Your task to perform on an android device: Open calendar and show me the second week of next month Image 0: 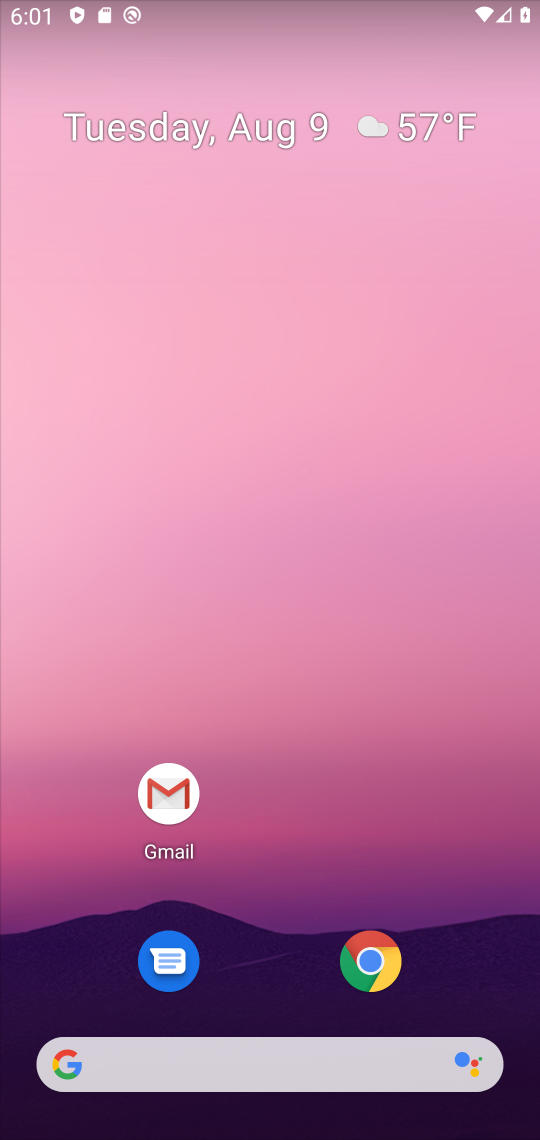
Step 0: press back button
Your task to perform on an android device: Open calendar and show me the second week of next month Image 1: 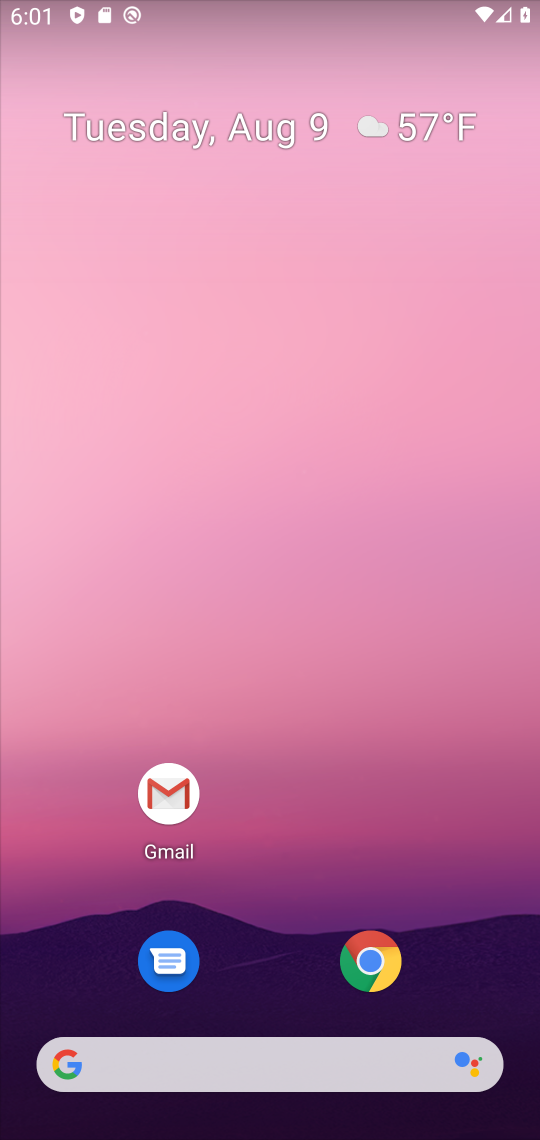
Step 1: click (231, 238)
Your task to perform on an android device: Open calendar and show me the second week of next month Image 2: 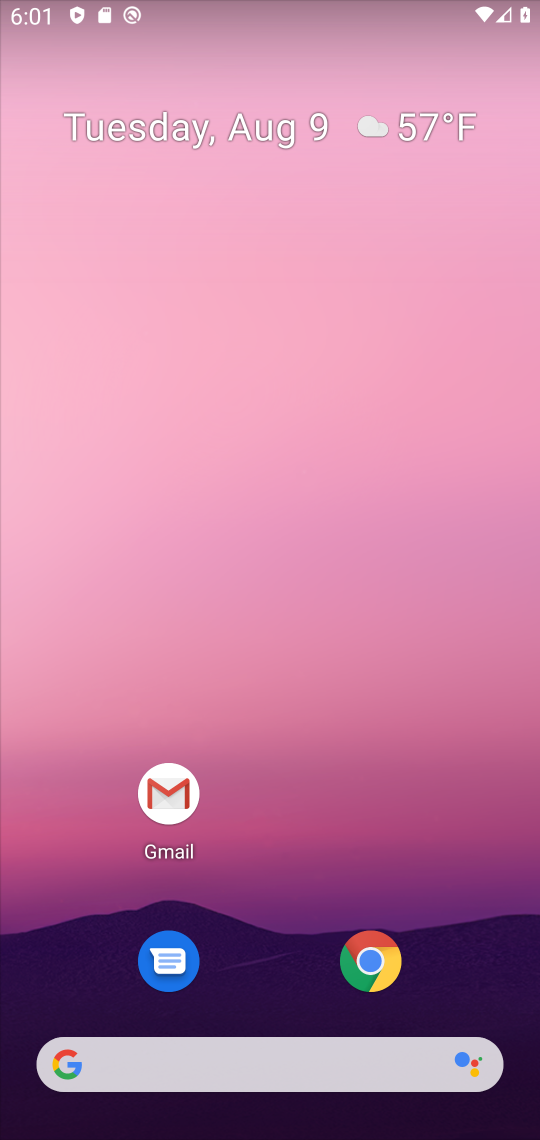
Step 2: drag from (282, 576) to (280, 385)
Your task to perform on an android device: Open calendar and show me the second week of next month Image 3: 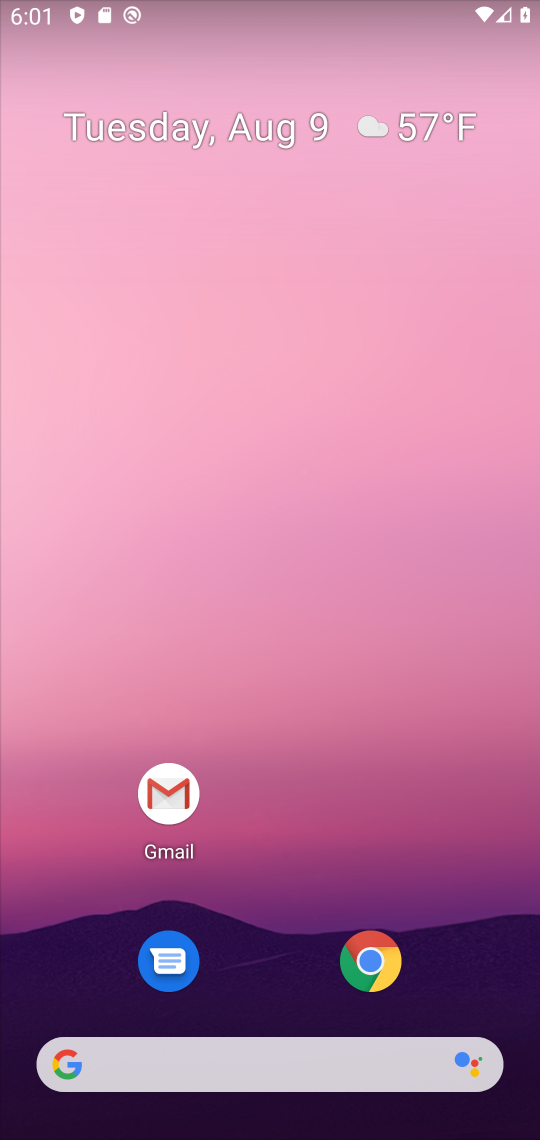
Step 3: drag from (208, 1040) to (163, 474)
Your task to perform on an android device: Open calendar and show me the second week of next month Image 4: 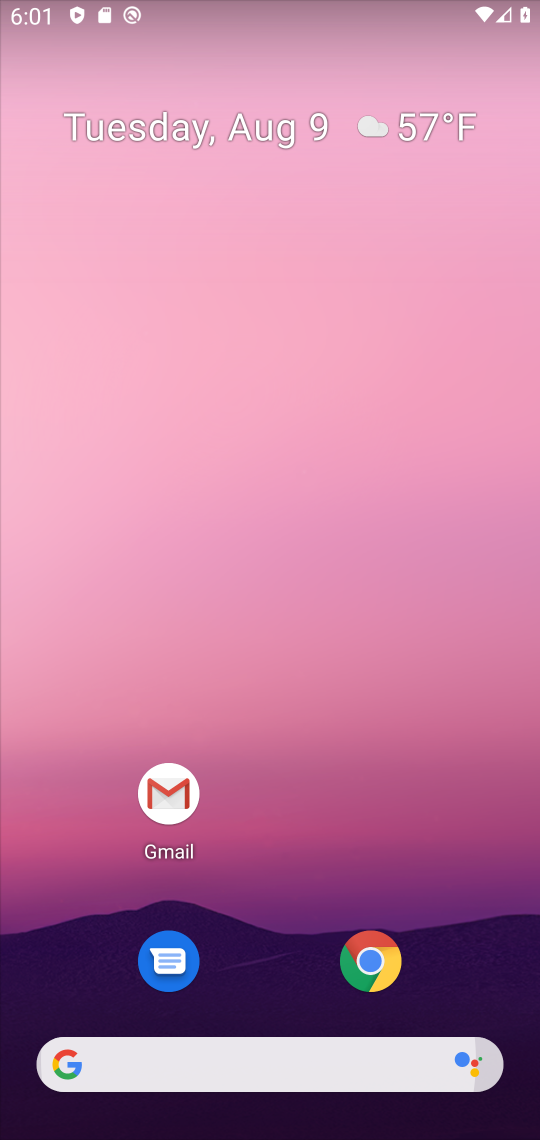
Step 4: drag from (283, 958) to (283, 499)
Your task to perform on an android device: Open calendar and show me the second week of next month Image 5: 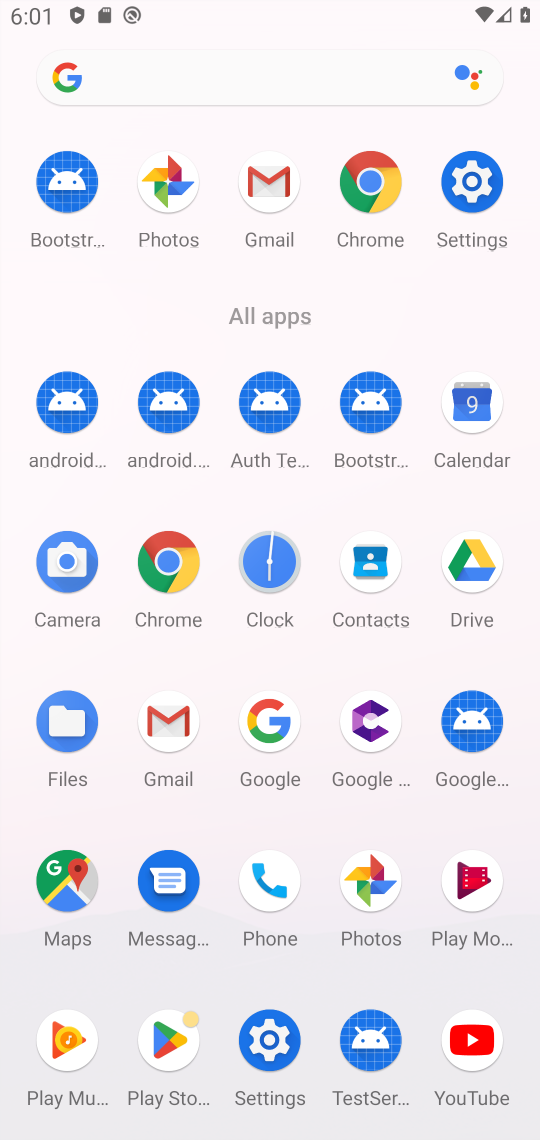
Step 5: click (306, 401)
Your task to perform on an android device: Open calendar and show me the second week of next month Image 6: 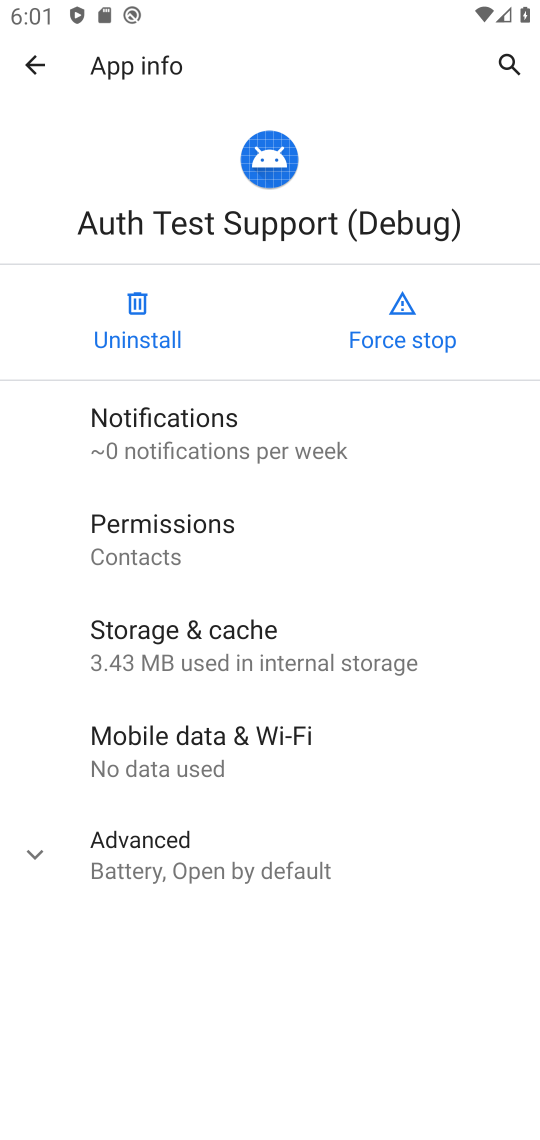
Step 6: click (41, 63)
Your task to perform on an android device: Open calendar and show me the second week of next month Image 7: 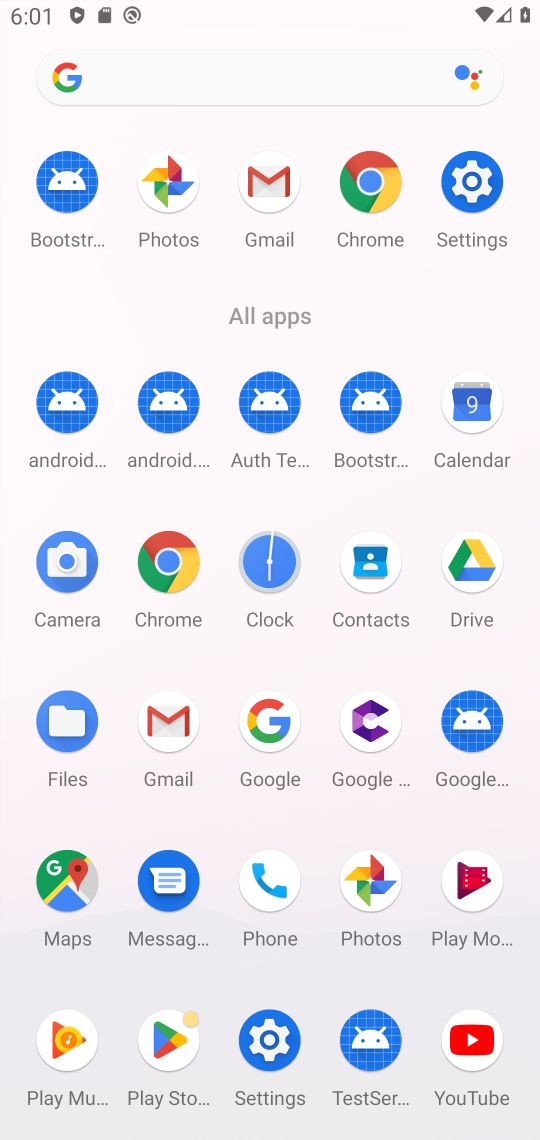
Step 7: click (470, 406)
Your task to perform on an android device: Open calendar and show me the second week of next month Image 8: 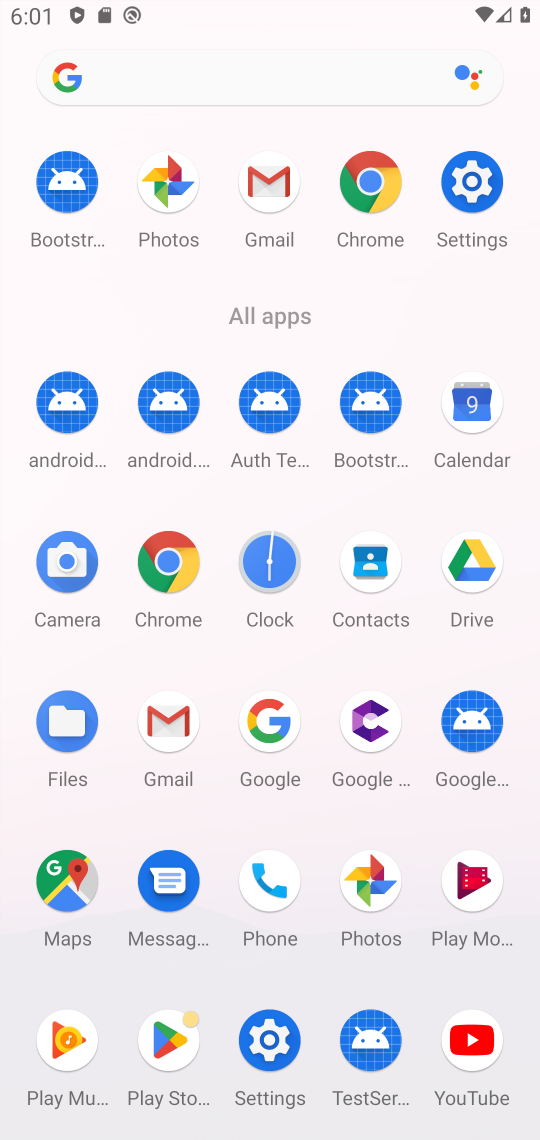
Step 8: click (470, 406)
Your task to perform on an android device: Open calendar and show me the second week of next month Image 9: 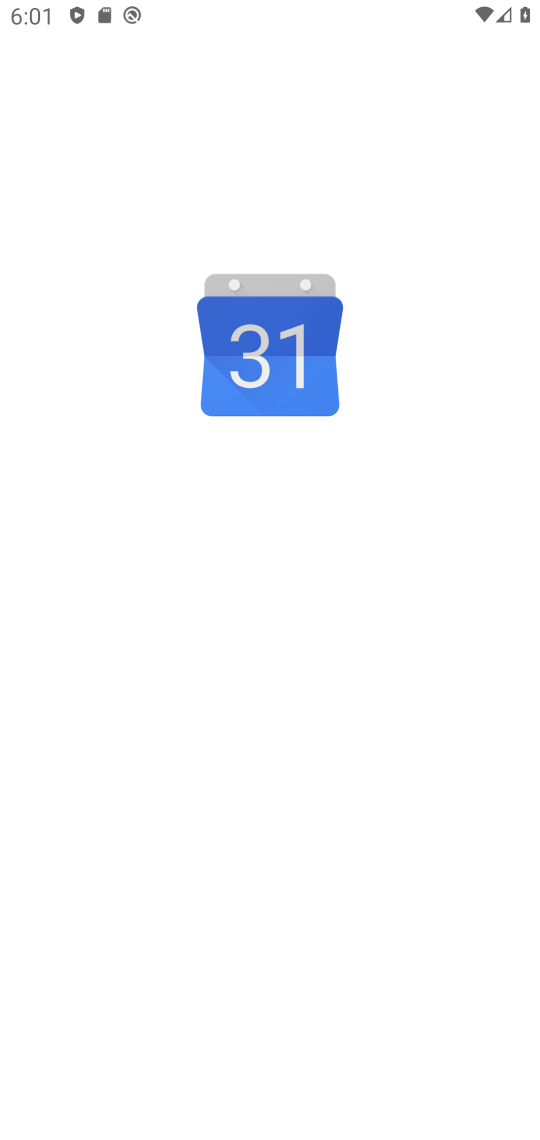
Step 9: click (470, 406)
Your task to perform on an android device: Open calendar and show me the second week of next month Image 10: 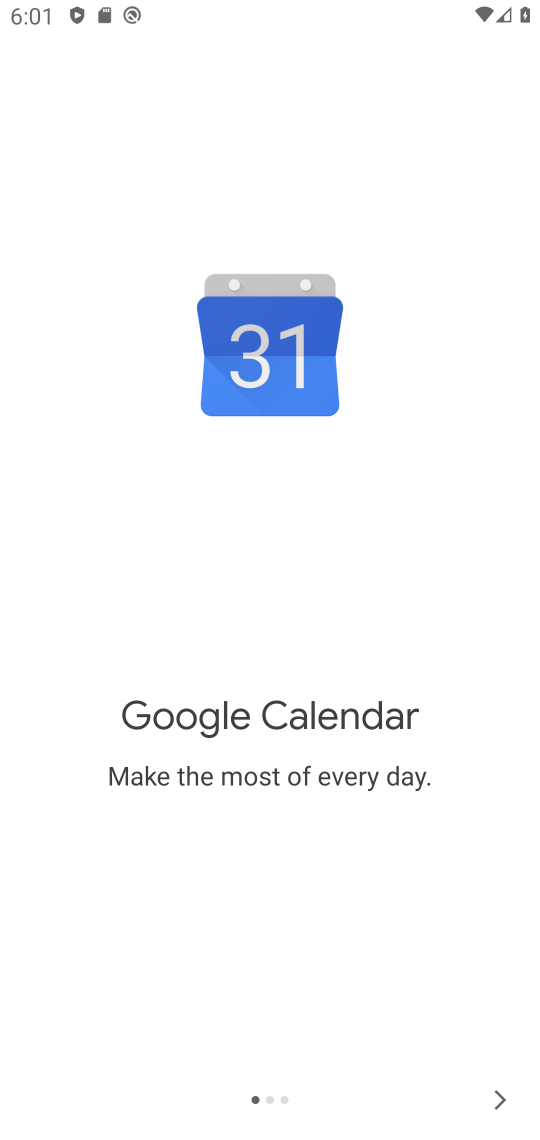
Step 10: click (483, 1115)
Your task to perform on an android device: Open calendar and show me the second week of next month Image 11: 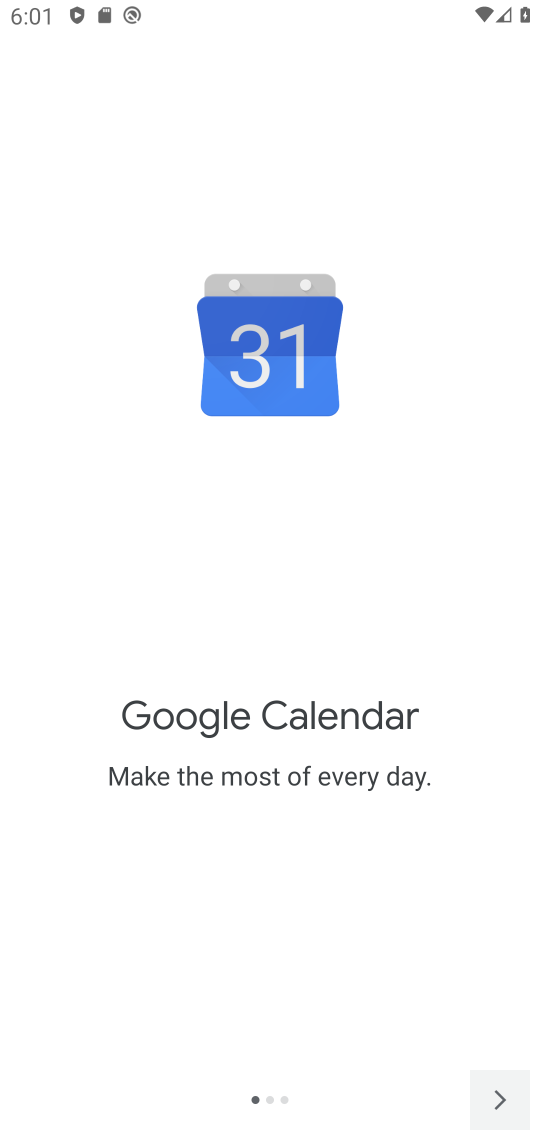
Step 11: click (496, 1106)
Your task to perform on an android device: Open calendar and show me the second week of next month Image 12: 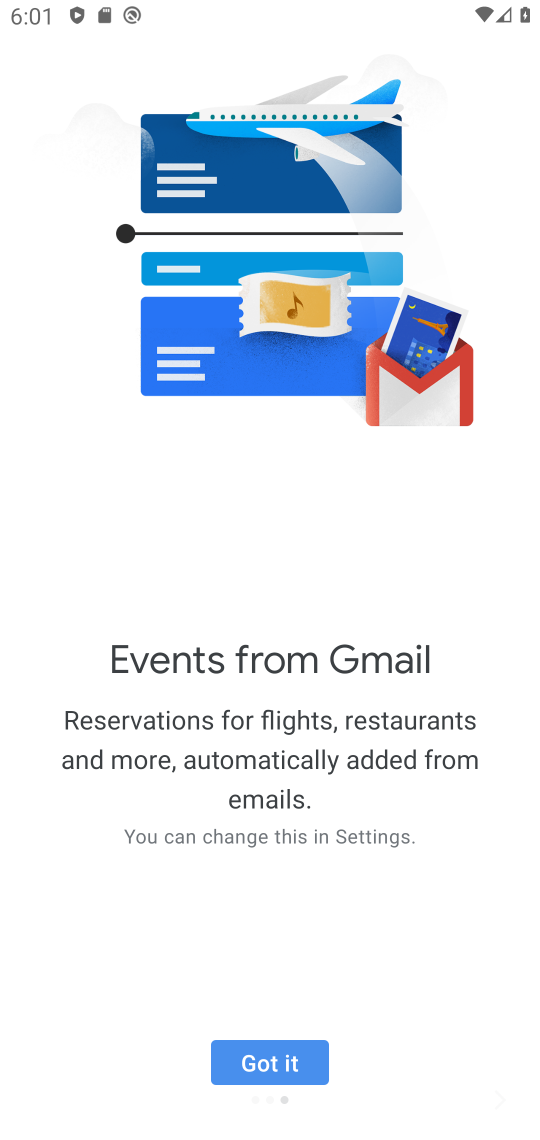
Step 12: click (510, 1085)
Your task to perform on an android device: Open calendar and show me the second week of next month Image 13: 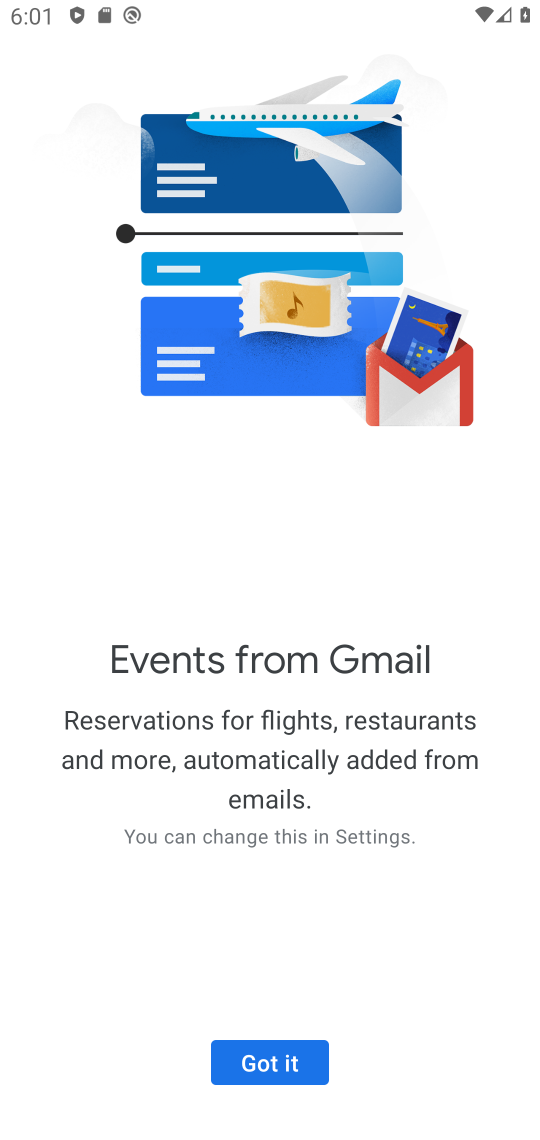
Step 13: click (281, 1042)
Your task to perform on an android device: Open calendar and show me the second week of next month Image 14: 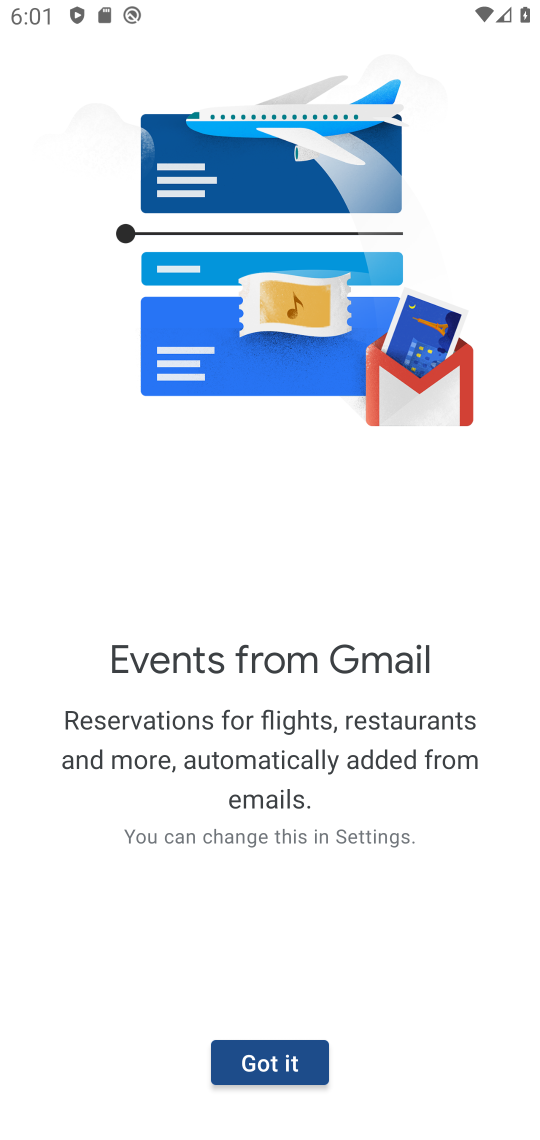
Step 14: click (281, 1034)
Your task to perform on an android device: Open calendar and show me the second week of next month Image 15: 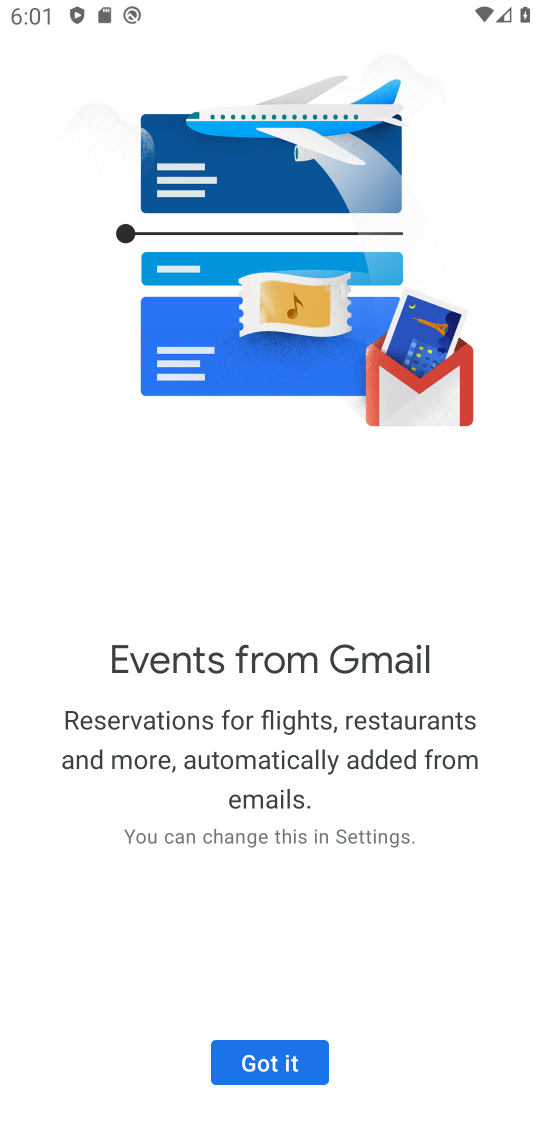
Step 15: click (324, 1053)
Your task to perform on an android device: Open calendar and show me the second week of next month Image 16: 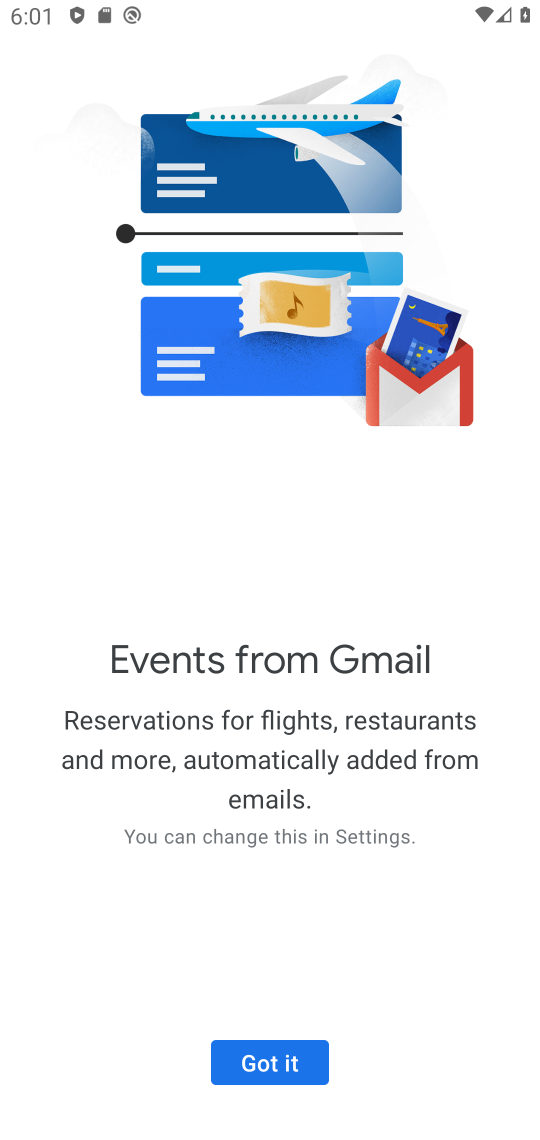
Step 16: click (256, 1063)
Your task to perform on an android device: Open calendar and show me the second week of next month Image 17: 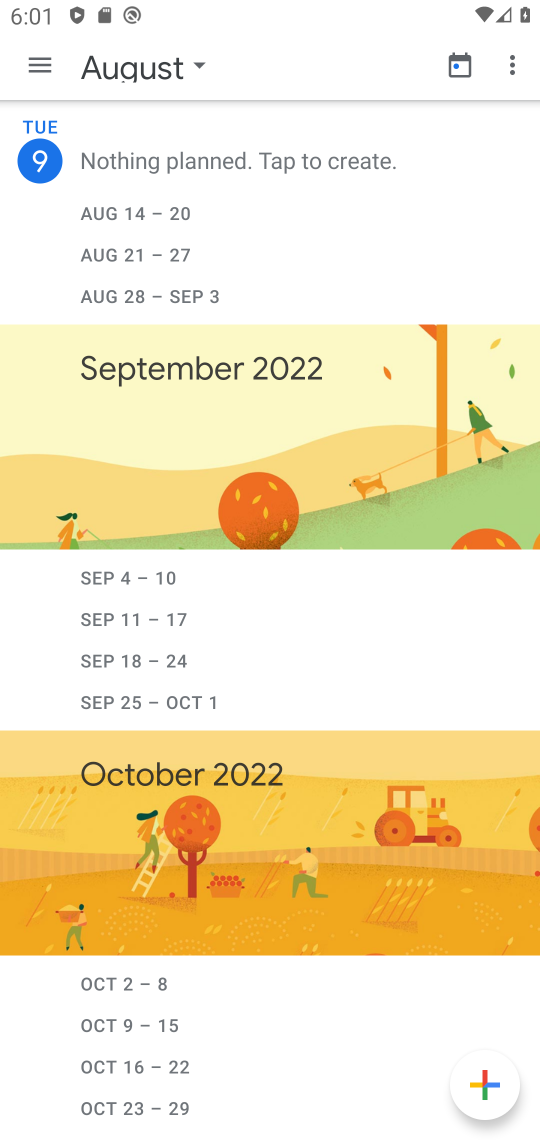
Step 17: drag from (198, 72) to (143, 677)
Your task to perform on an android device: Open calendar and show me the second week of next month Image 18: 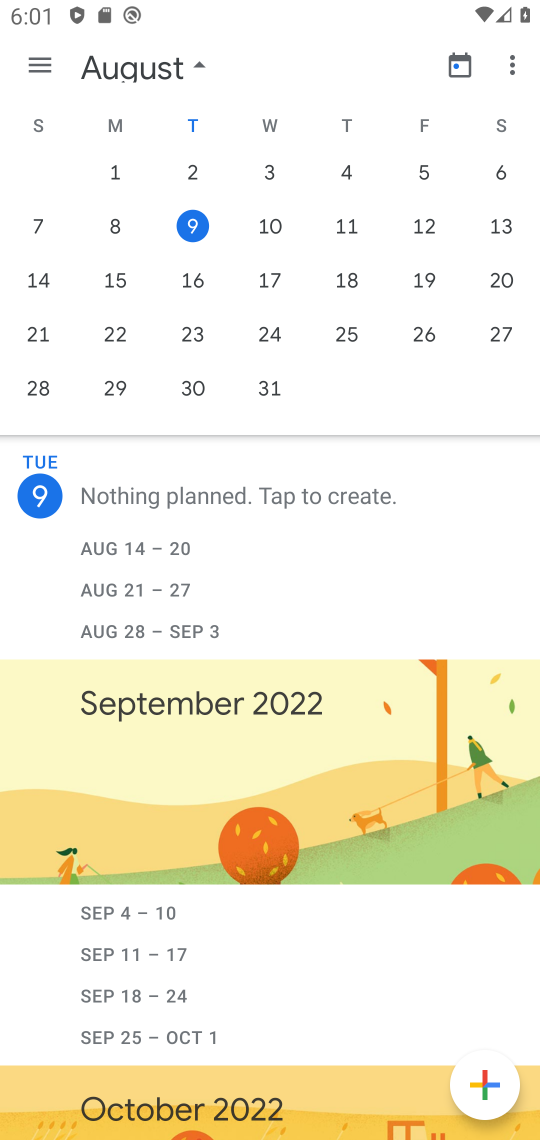
Step 18: click (346, 299)
Your task to perform on an android device: Open calendar and show me the second week of next month Image 19: 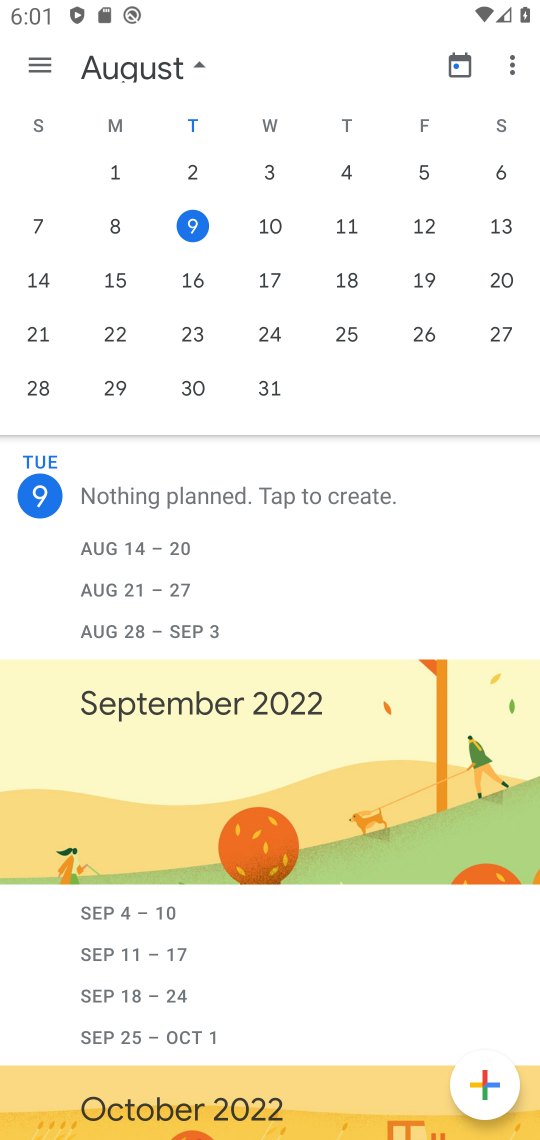
Step 19: drag from (392, 270) to (29, 198)
Your task to perform on an android device: Open calendar and show me the second week of next month Image 20: 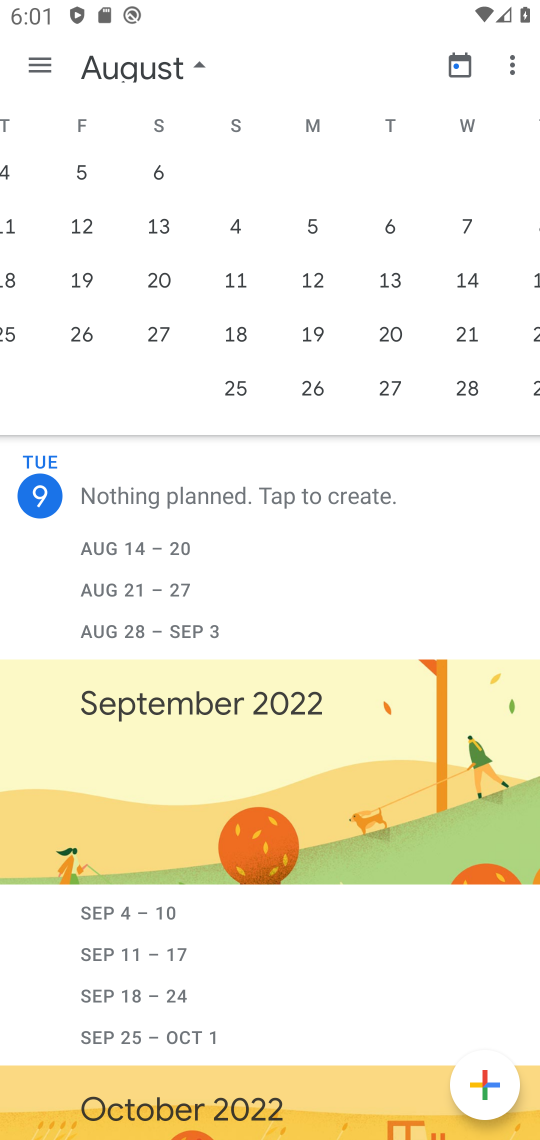
Step 20: drag from (266, 251) to (9, 185)
Your task to perform on an android device: Open calendar and show me the second week of next month Image 21: 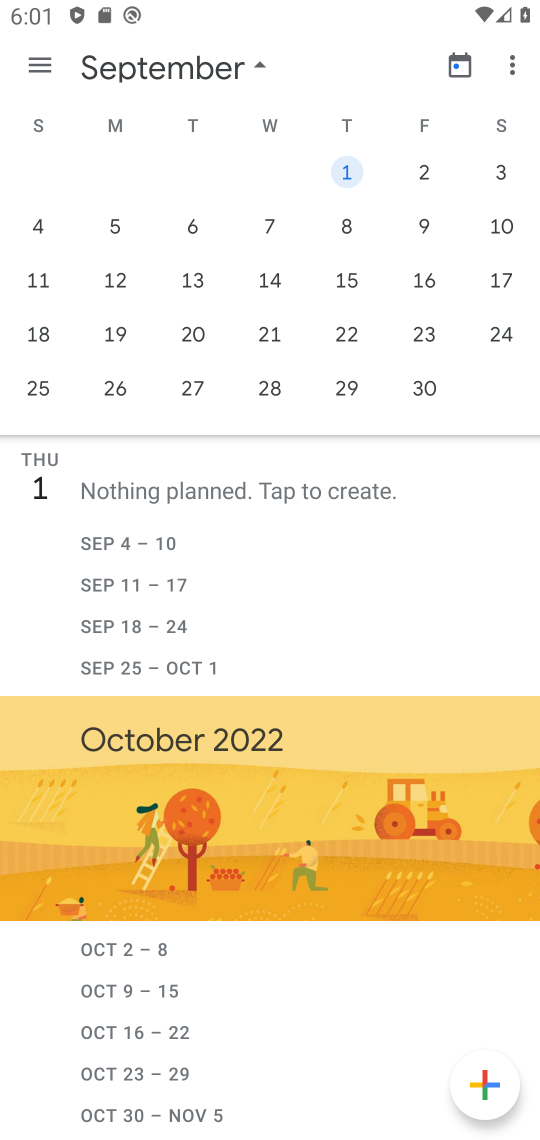
Step 21: click (338, 221)
Your task to perform on an android device: Open calendar and show me the second week of next month Image 22: 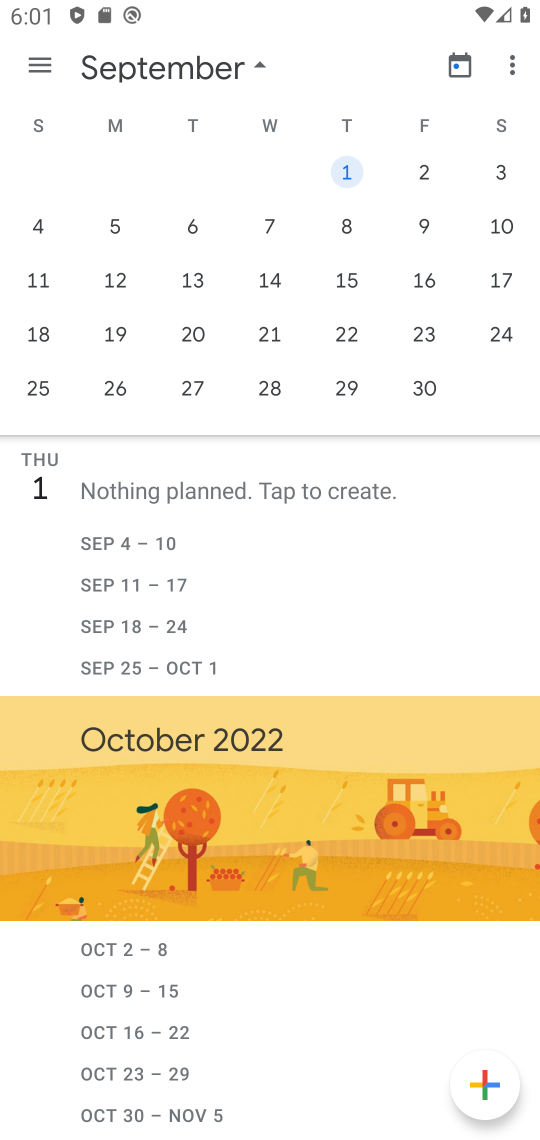
Step 22: click (343, 224)
Your task to perform on an android device: Open calendar and show me the second week of next month Image 23: 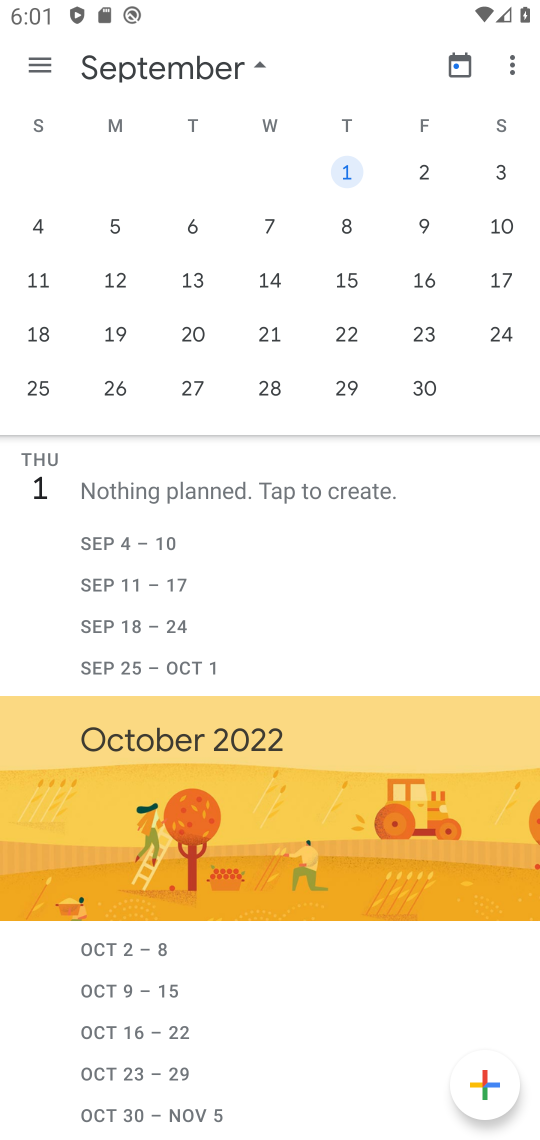
Step 23: click (341, 225)
Your task to perform on an android device: Open calendar and show me the second week of next month Image 24: 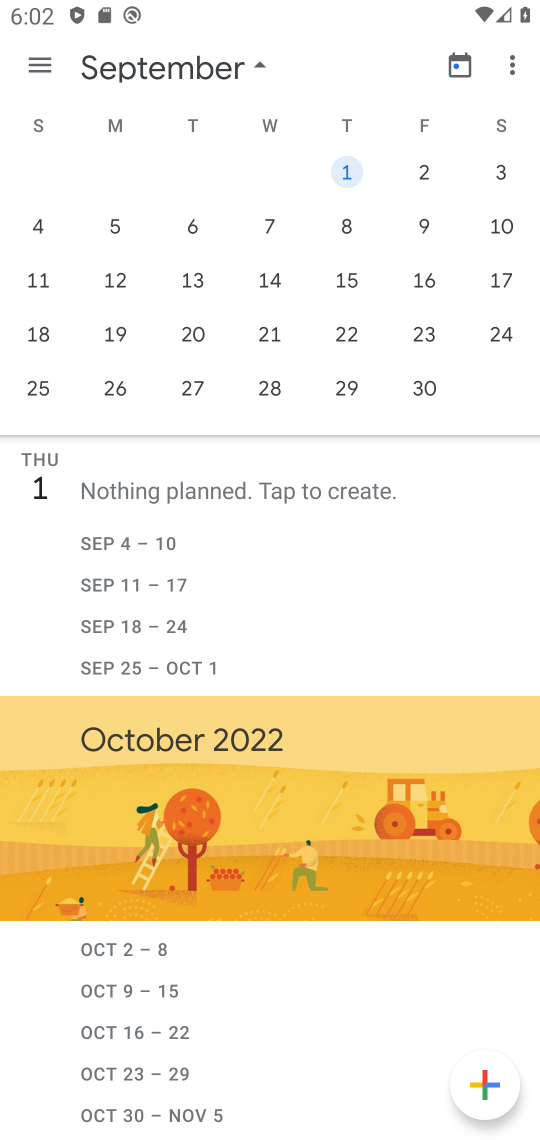
Step 24: task complete